Your task to perform on an android device: toggle sleep mode Image 0: 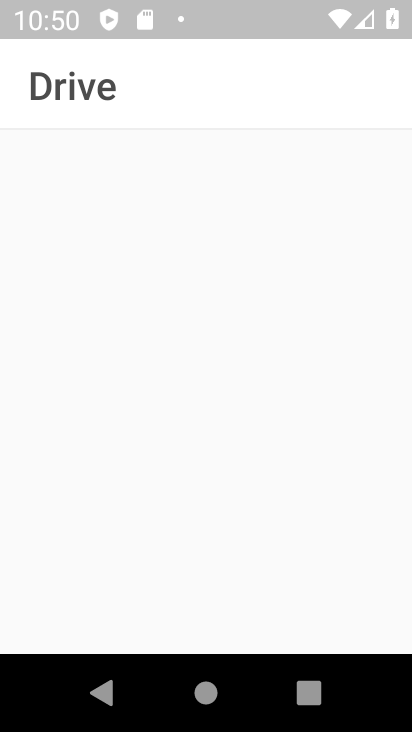
Step 0: click (281, 263)
Your task to perform on an android device: toggle sleep mode Image 1: 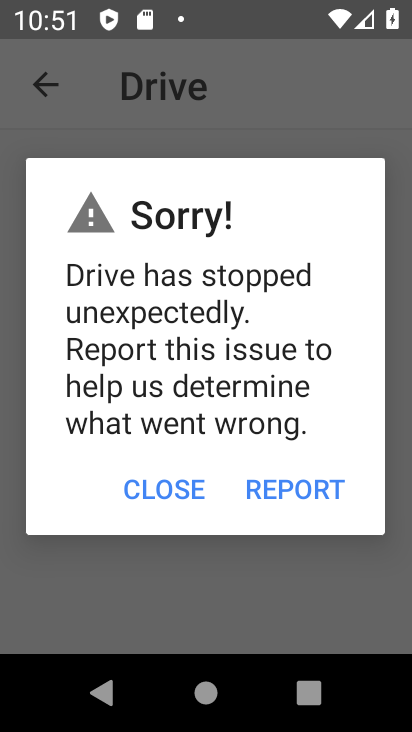
Step 1: press back button
Your task to perform on an android device: toggle sleep mode Image 2: 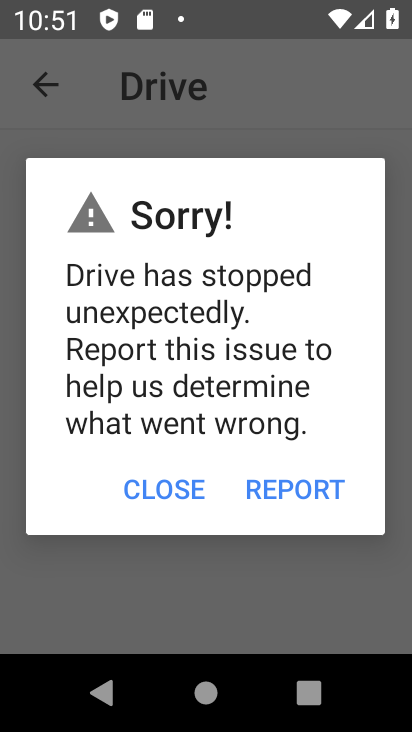
Step 2: press home button
Your task to perform on an android device: toggle sleep mode Image 3: 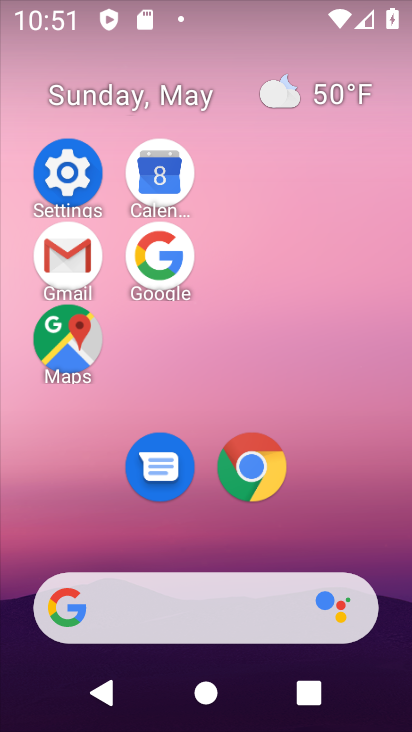
Step 3: click (69, 158)
Your task to perform on an android device: toggle sleep mode Image 4: 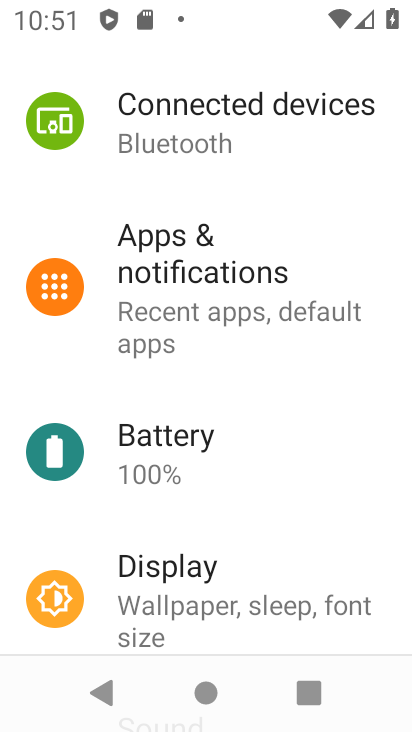
Step 4: click (252, 563)
Your task to perform on an android device: toggle sleep mode Image 5: 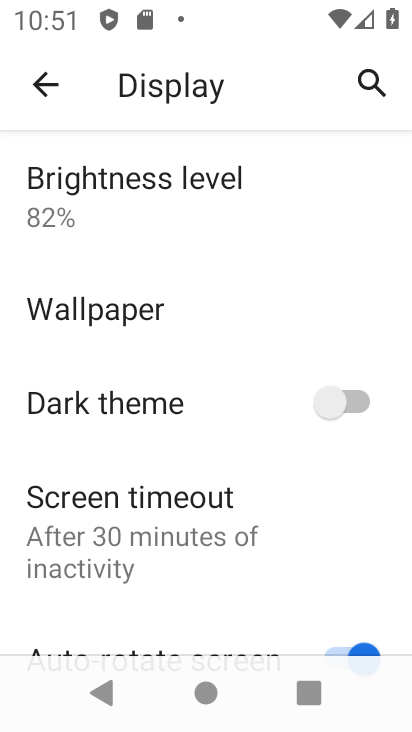
Step 5: click (149, 497)
Your task to perform on an android device: toggle sleep mode Image 6: 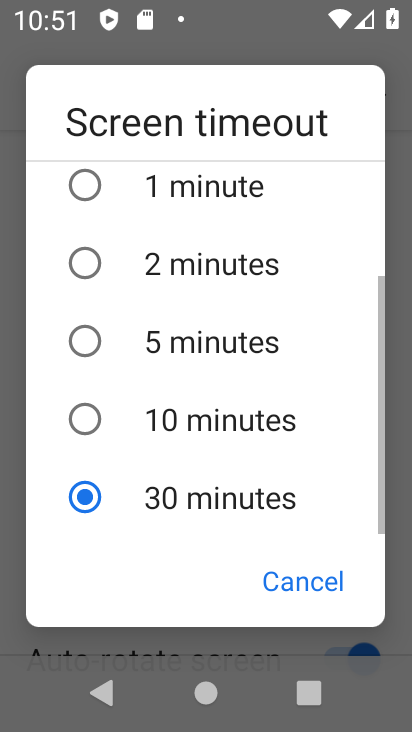
Step 6: click (209, 194)
Your task to perform on an android device: toggle sleep mode Image 7: 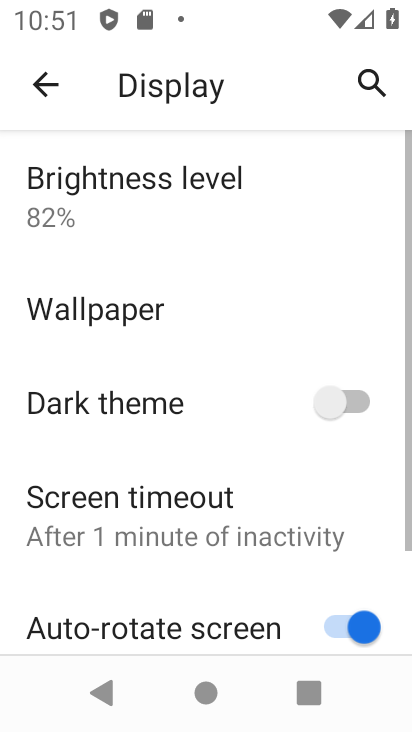
Step 7: task complete